Your task to perform on an android device: Clear the shopping cart on amazon.com. Image 0: 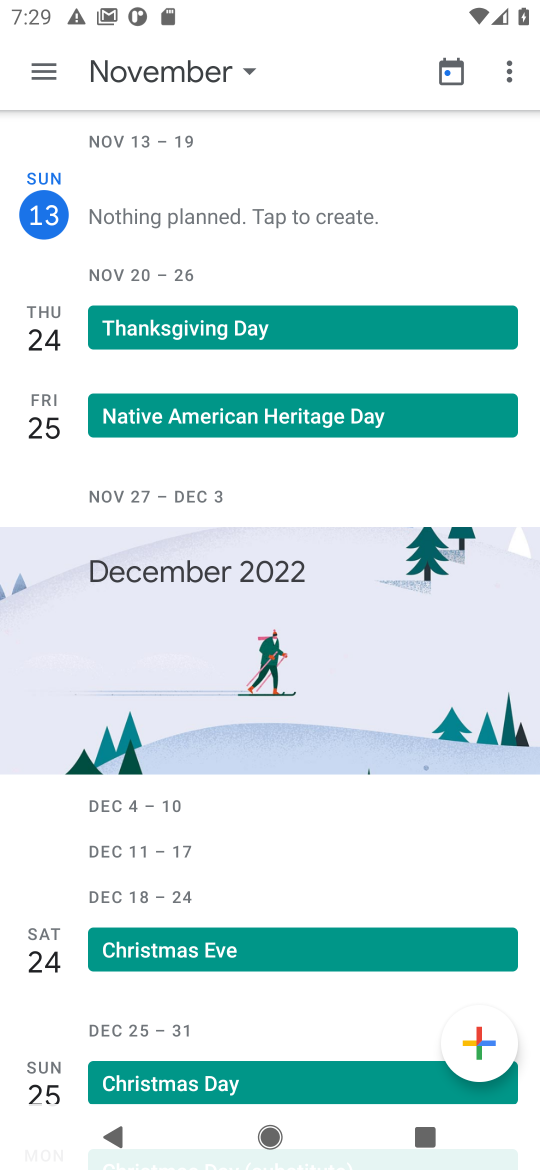
Step 0: press home button
Your task to perform on an android device: Clear the shopping cart on amazon.com. Image 1: 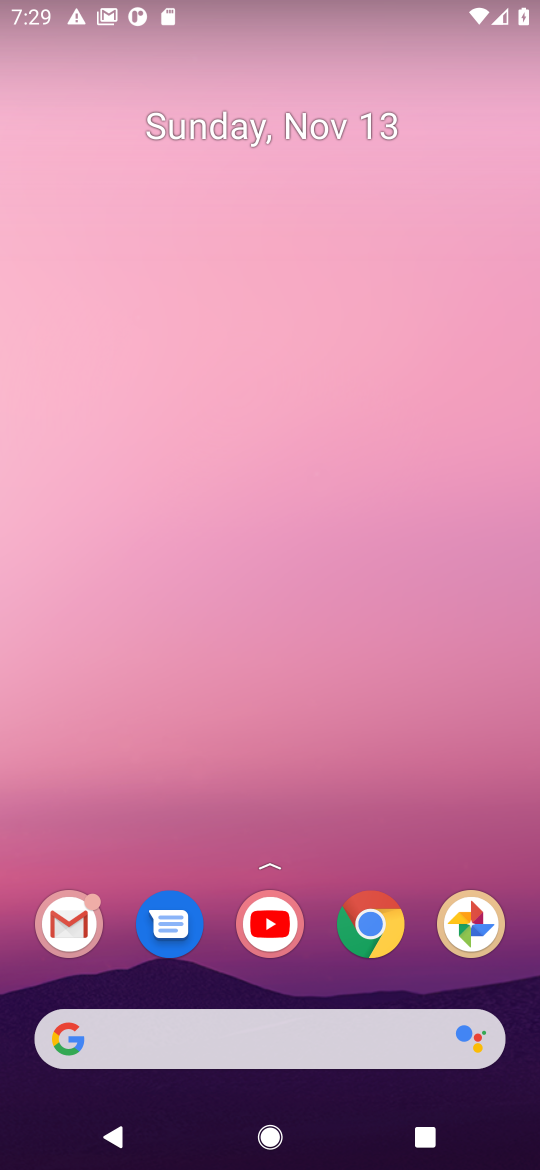
Step 1: click (364, 927)
Your task to perform on an android device: Clear the shopping cart on amazon.com. Image 2: 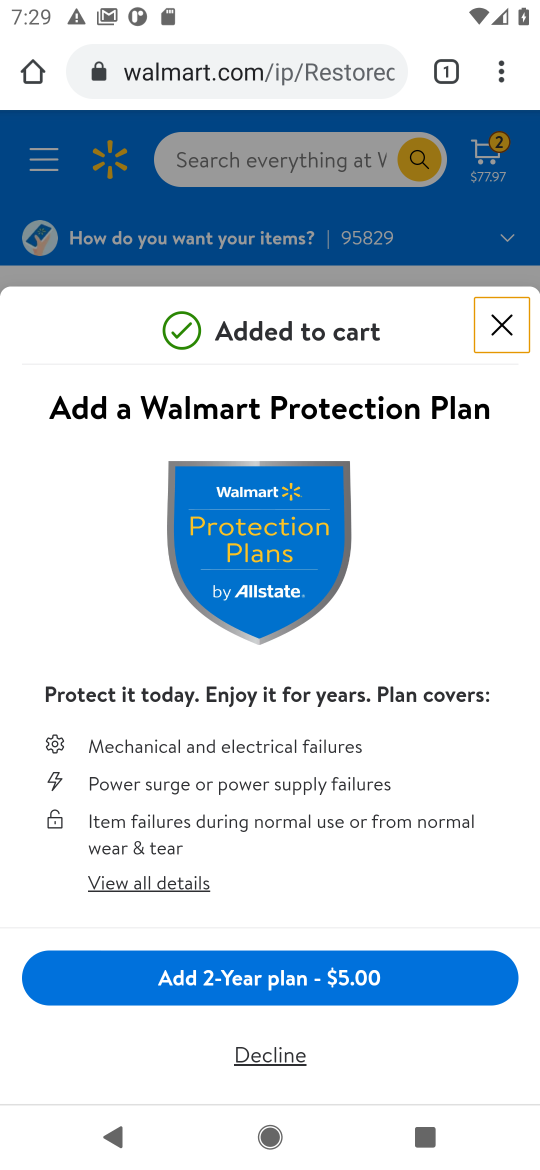
Step 2: click (256, 79)
Your task to perform on an android device: Clear the shopping cart on amazon.com. Image 3: 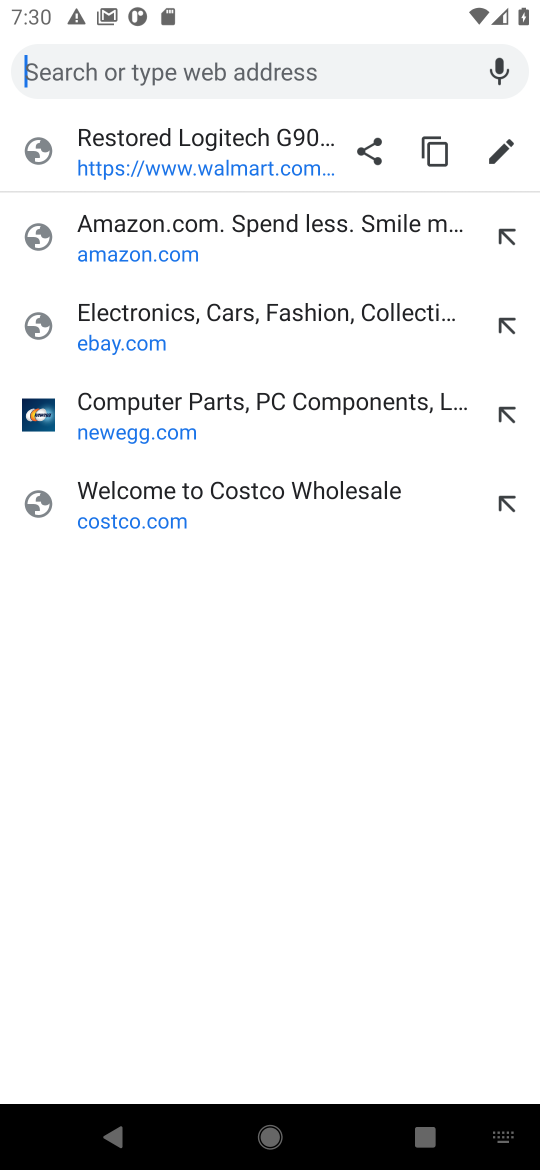
Step 3: click (120, 261)
Your task to perform on an android device: Clear the shopping cart on amazon.com. Image 4: 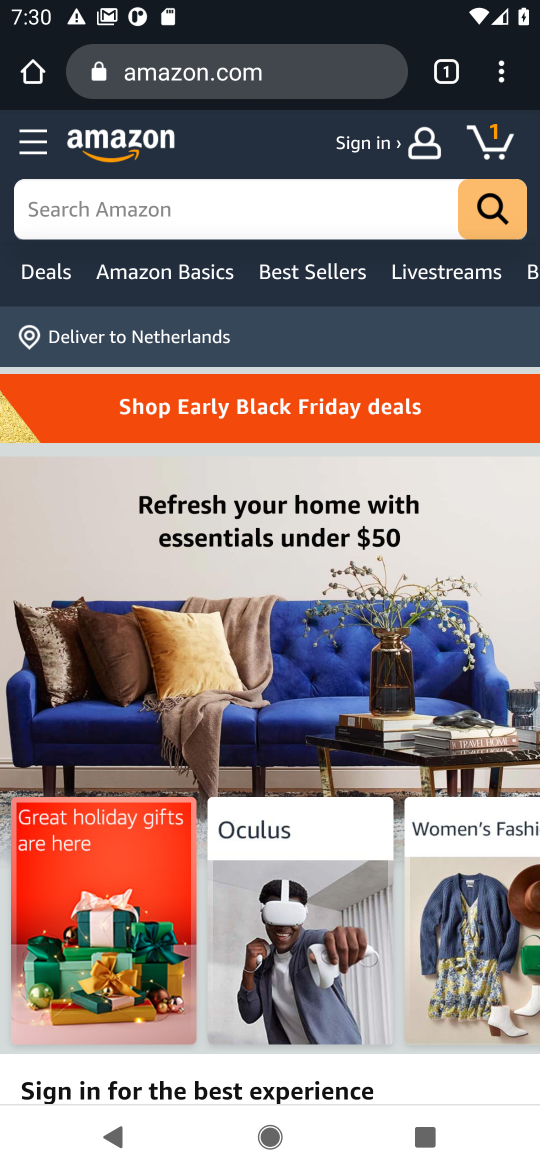
Step 4: click (488, 148)
Your task to perform on an android device: Clear the shopping cart on amazon.com. Image 5: 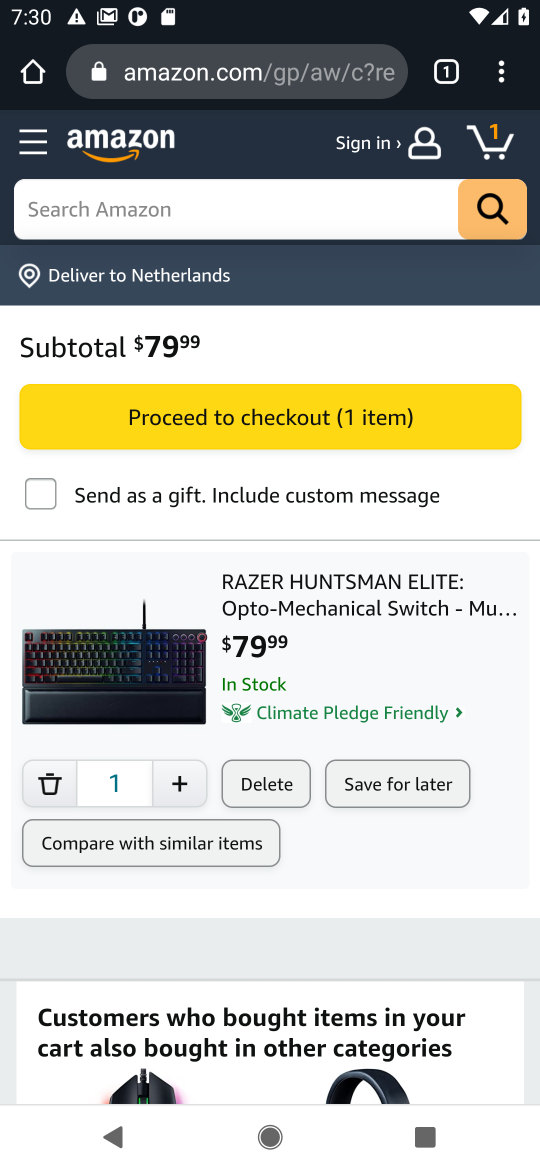
Step 5: click (54, 789)
Your task to perform on an android device: Clear the shopping cart on amazon.com. Image 6: 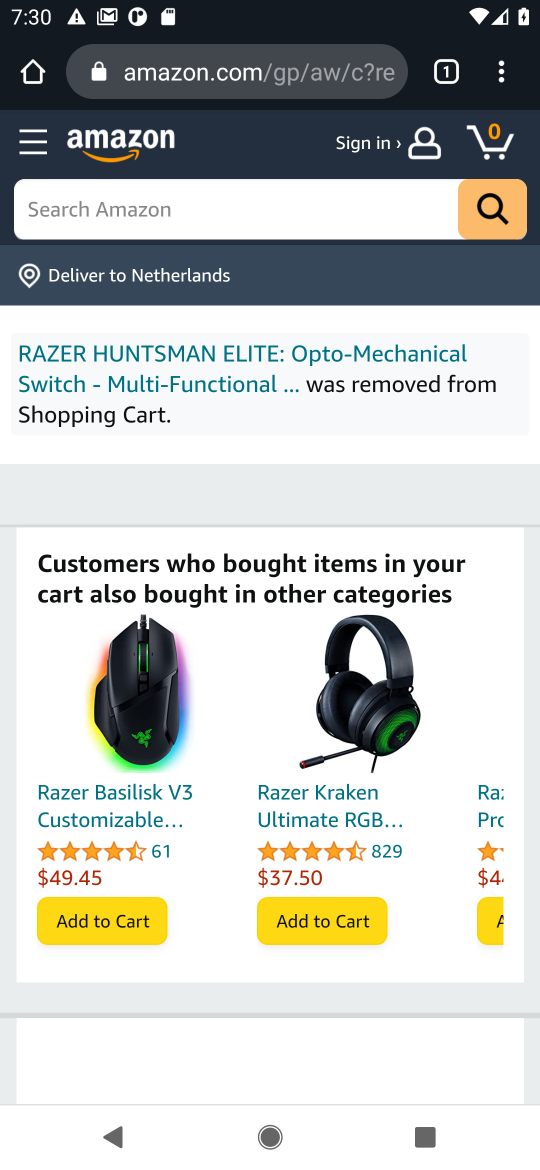
Step 6: task complete